Your task to perform on an android device: Open Amazon Image 0: 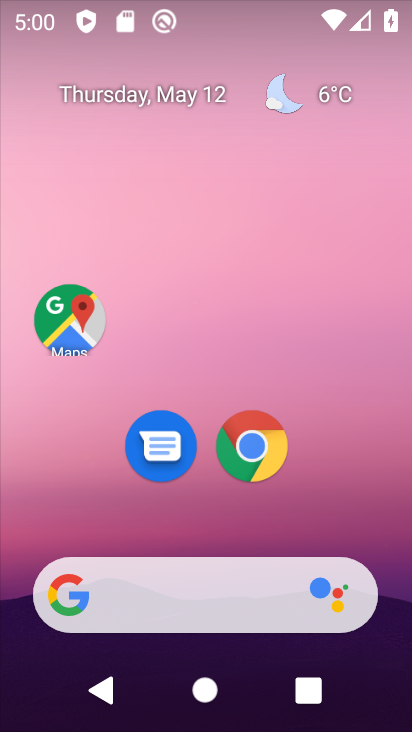
Step 0: click (251, 450)
Your task to perform on an android device: Open Amazon Image 1: 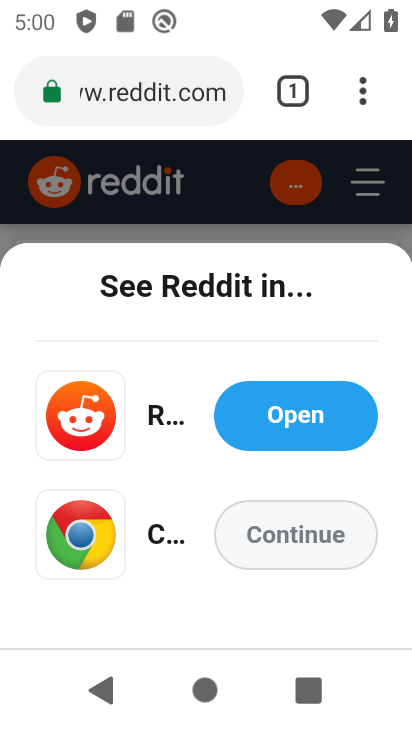
Step 1: press home button
Your task to perform on an android device: Open Amazon Image 2: 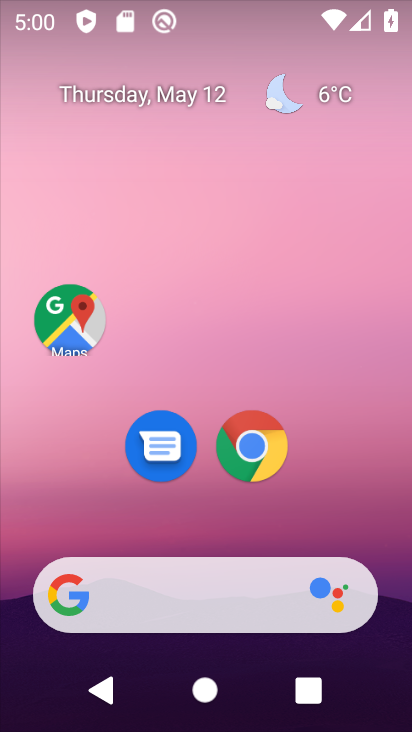
Step 2: click (248, 447)
Your task to perform on an android device: Open Amazon Image 3: 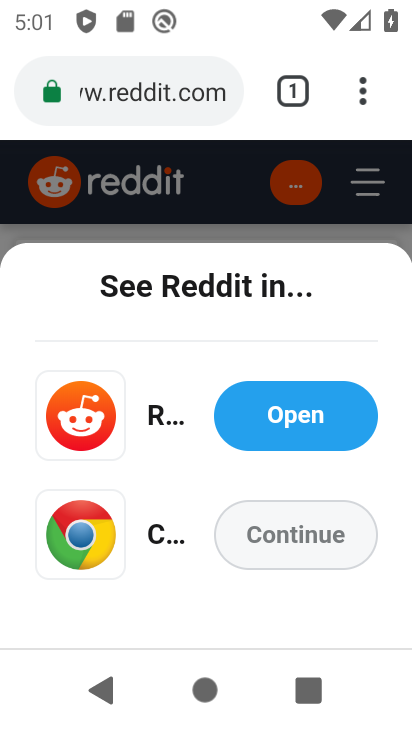
Step 3: drag from (368, 89) to (87, 178)
Your task to perform on an android device: Open Amazon Image 4: 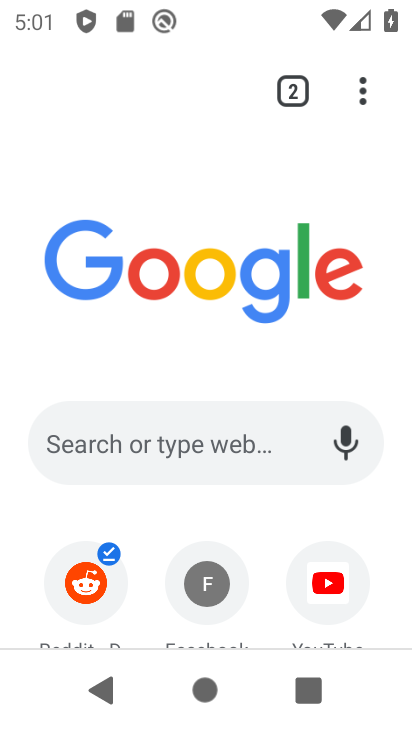
Step 4: drag from (270, 538) to (282, 260)
Your task to perform on an android device: Open Amazon Image 5: 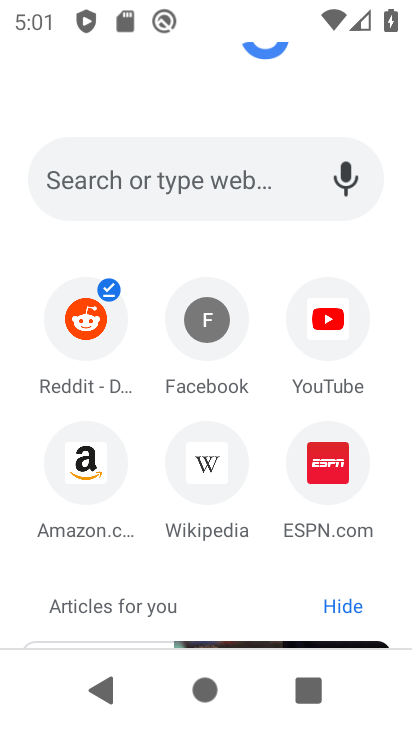
Step 5: click (77, 452)
Your task to perform on an android device: Open Amazon Image 6: 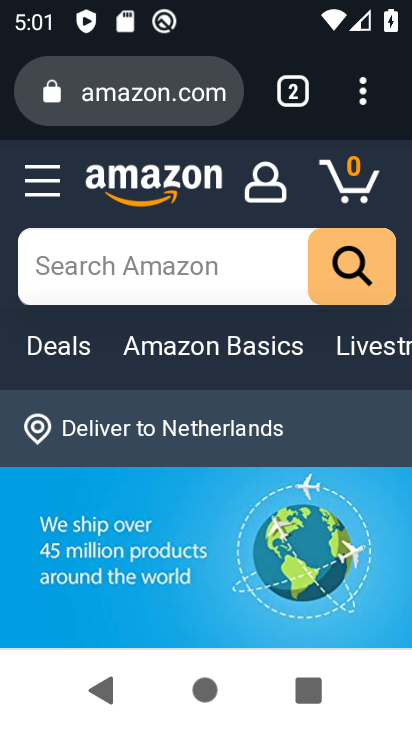
Step 6: task complete